Your task to perform on an android device: Open Amazon Image 0: 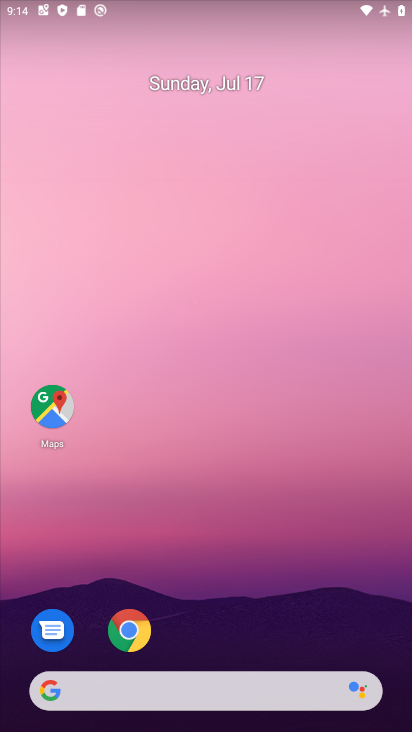
Step 0: click (119, 637)
Your task to perform on an android device: Open Amazon Image 1: 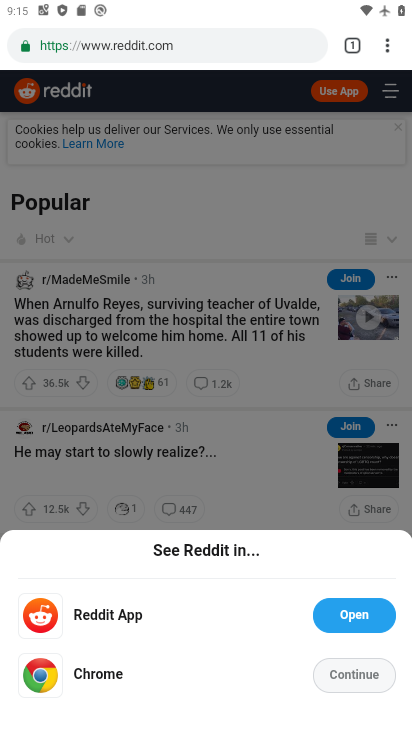
Step 1: click (135, 480)
Your task to perform on an android device: Open Amazon Image 2: 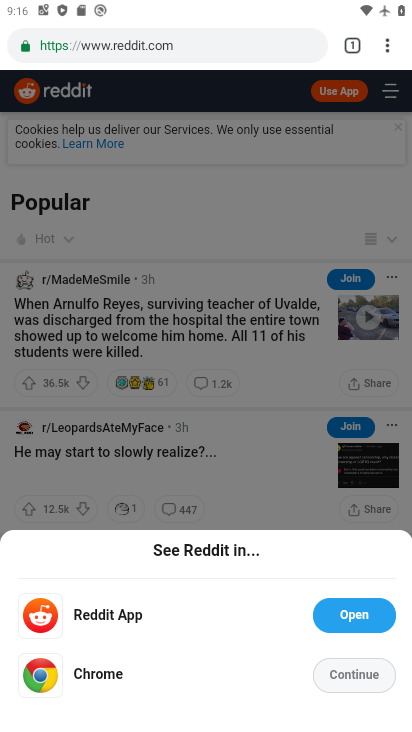
Step 2: click (174, 51)
Your task to perform on an android device: Open Amazon Image 3: 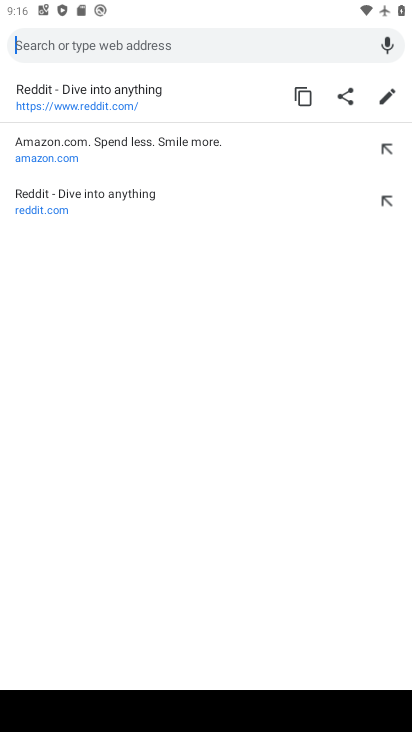
Step 3: click (170, 133)
Your task to perform on an android device: Open Amazon Image 4: 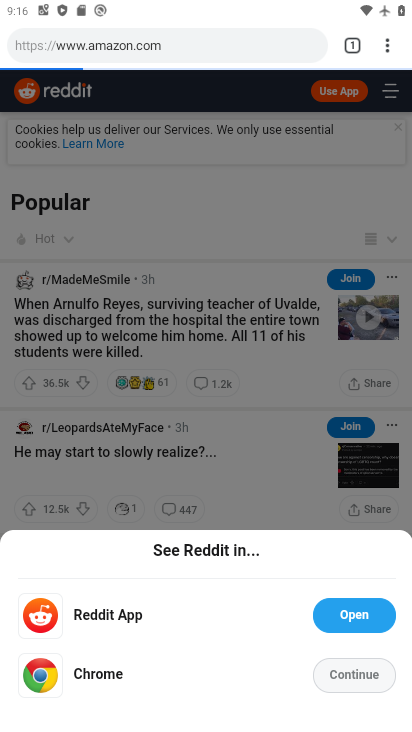
Step 4: task complete